Your task to perform on an android device: When is my next meeting? Image 0: 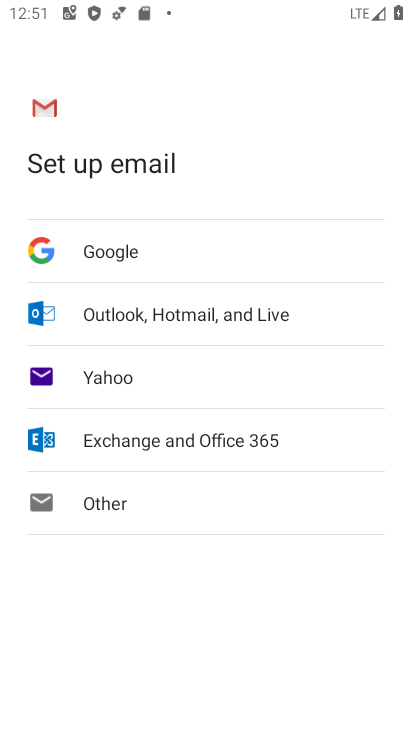
Step 0: press home button
Your task to perform on an android device: When is my next meeting? Image 1: 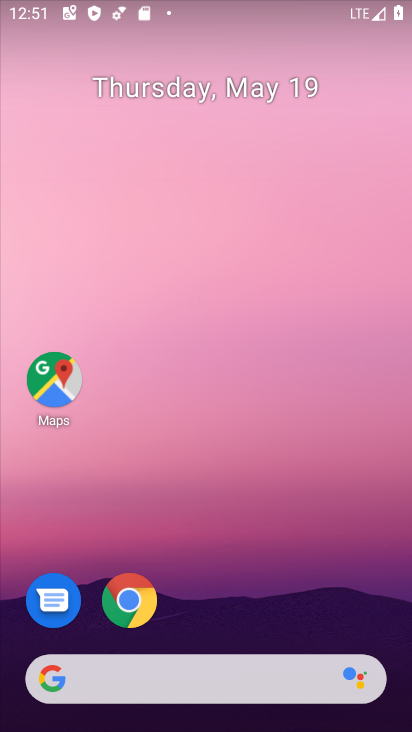
Step 1: drag from (243, 476) to (234, 82)
Your task to perform on an android device: When is my next meeting? Image 2: 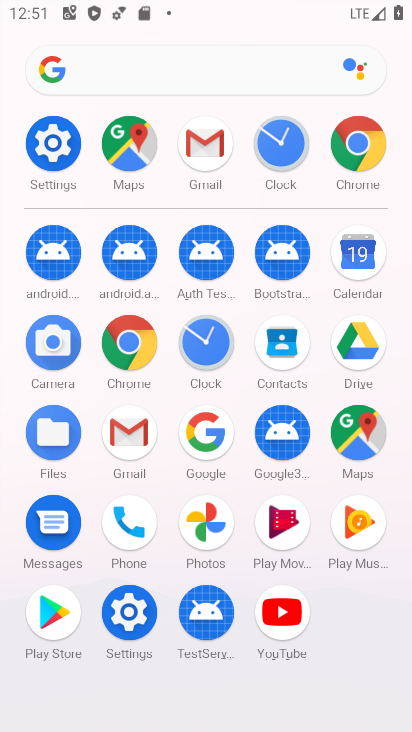
Step 2: click (154, 254)
Your task to perform on an android device: When is my next meeting? Image 3: 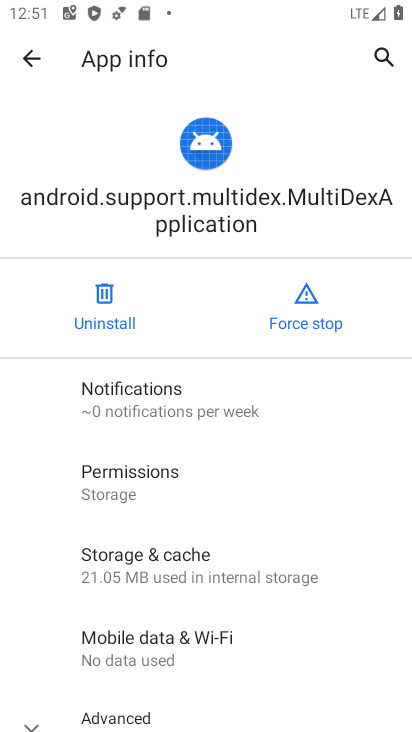
Step 3: click (34, 56)
Your task to perform on an android device: When is my next meeting? Image 4: 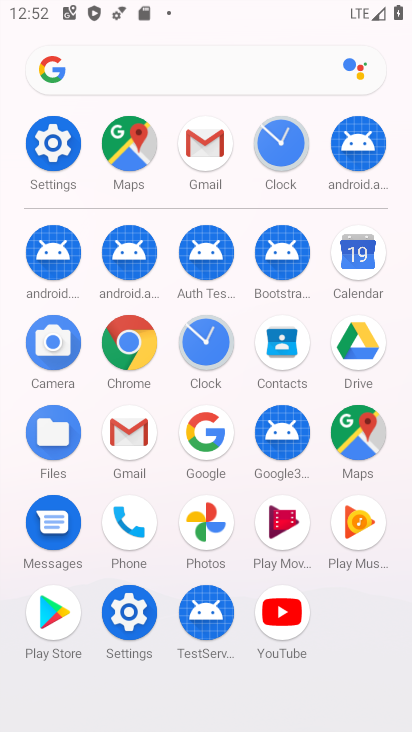
Step 4: click (368, 268)
Your task to perform on an android device: When is my next meeting? Image 5: 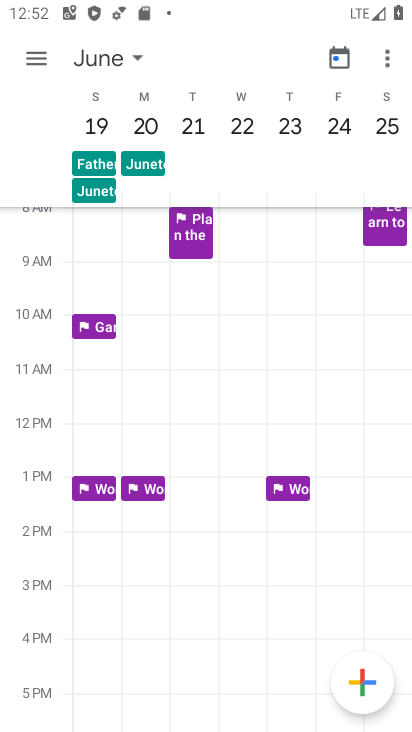
Step 5: click (128, 56)
Your task to perform on an android device: When is my next meeting? Image 6: 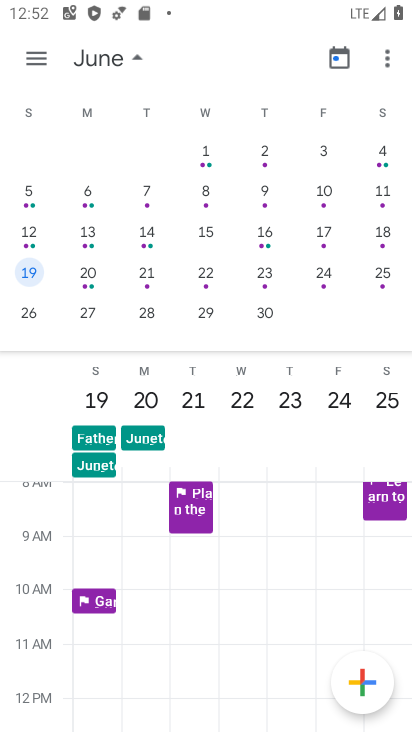
Step 6: drag from (46, 200) to (406, 171)
Your task to perform on an android device: When is my next meeting? Image 7: 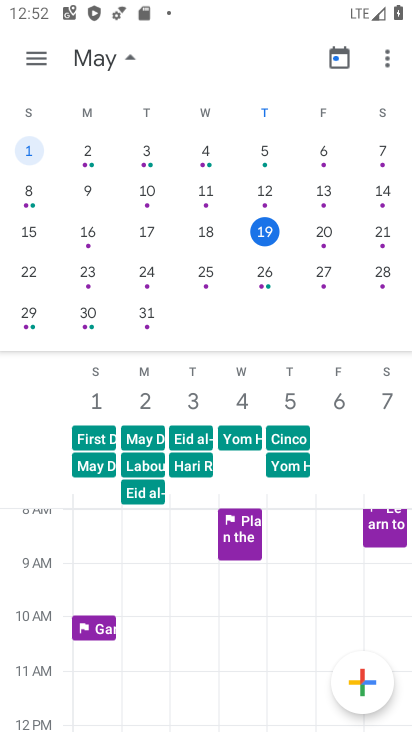
Step 7: click (271, 230)
Your task to perform on an android device: When is my next meeting? Image 8: 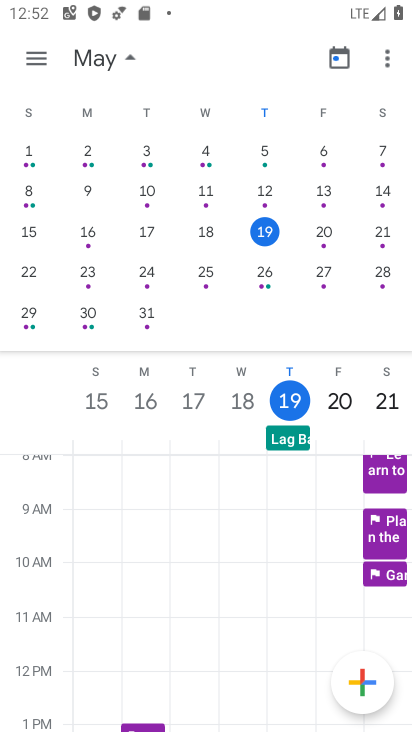
Step 8: click (263, 232)
Your task to perform on an android device: When is my next meeting? Image 9: 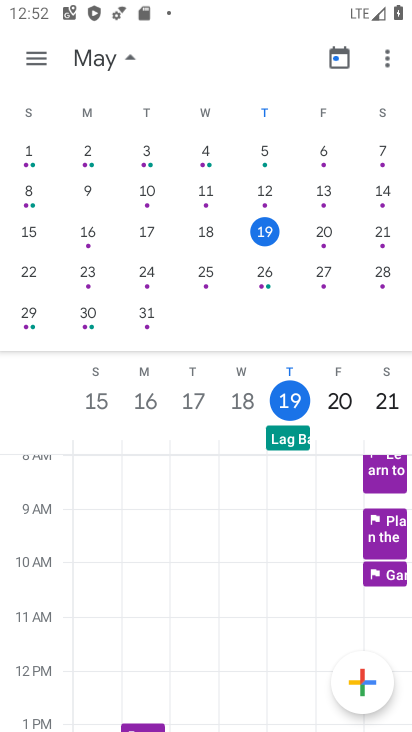
Step 9: task complete